Your task to perform on an android device: What's the weather going to be tomorrow? Image 0: 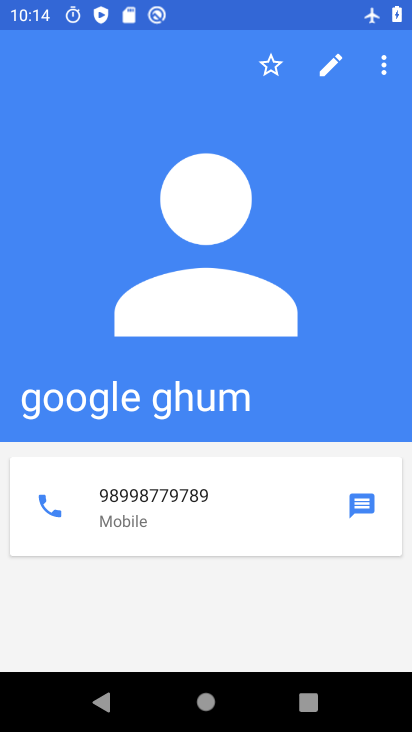
Step 0: press home button
Your task to perform on an android device: What's the weather going to be tomorrow? Image 1: 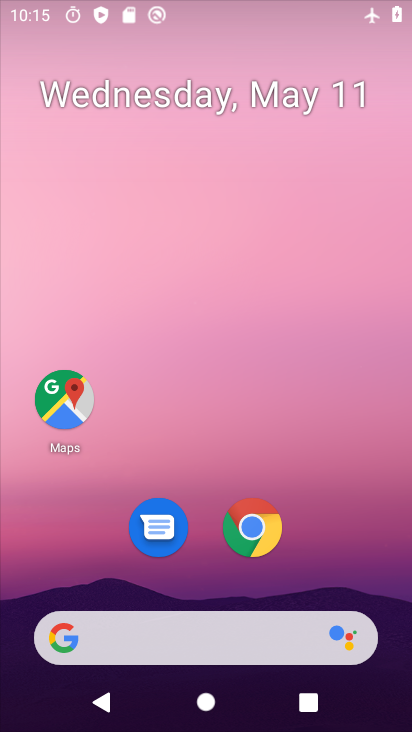
Step 1: drag from (282, 570) to (313, 149)
Your task to perform on an android device: What's the weather going to be tomorrow? Image 2: 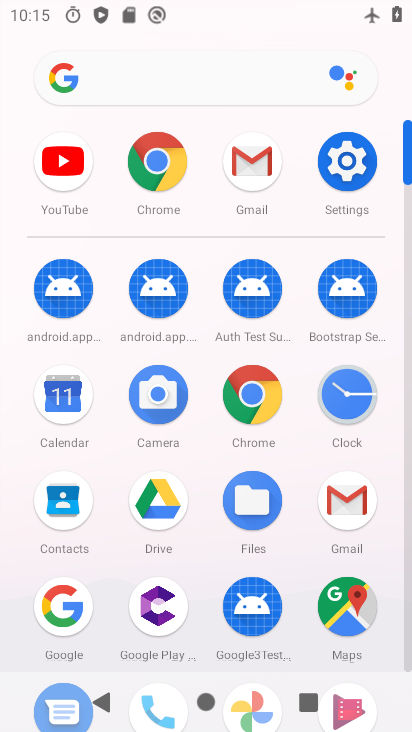
Step 2: drag from (277, 469) to (315, 248)
Your task to perform on an android device: What's the weather going to be tomorrow? Image 3: 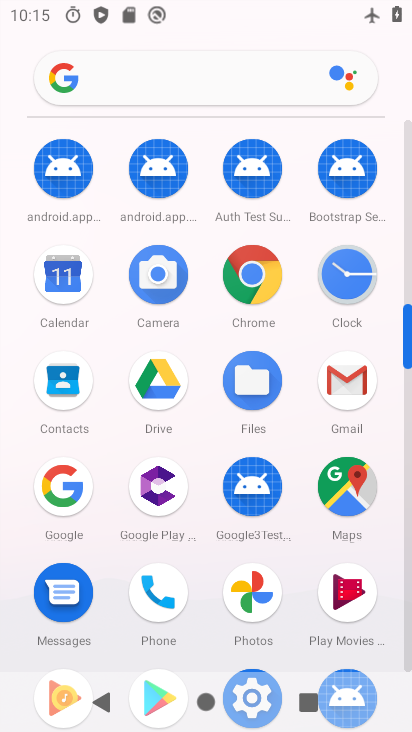
Step 3: click (61, 499)
Your task to perform on an android device: What's the weather going to be tomorrow? Image 4: 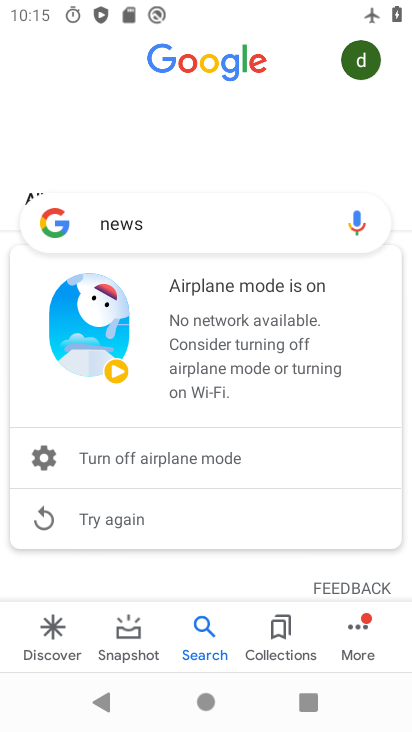
Step 4: click (289, 226)
Your task to perform on an android device: What's the weather going to be tomorrow? Image 5: 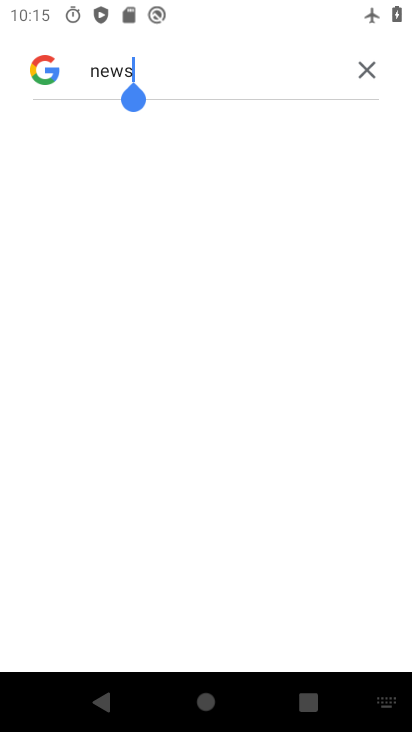
Step 5: click (366, 72)
Your task to perform on an android device: What's the weather going to be tomorrow? Image 6: 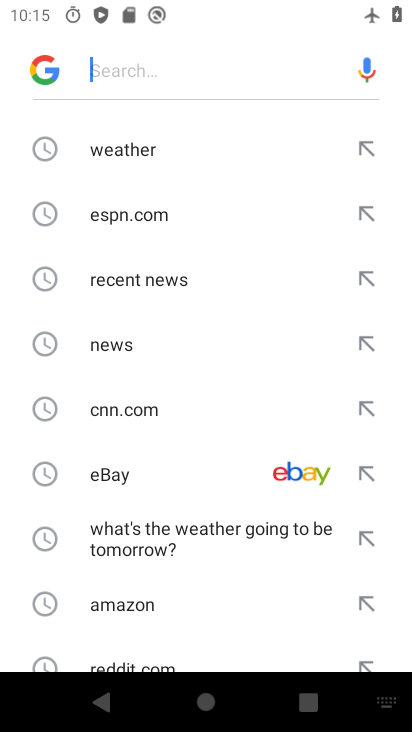
Step 6: click (212, 155)
Your task to perform on an android device: What's the weather going to be tomorrow? Image 7: 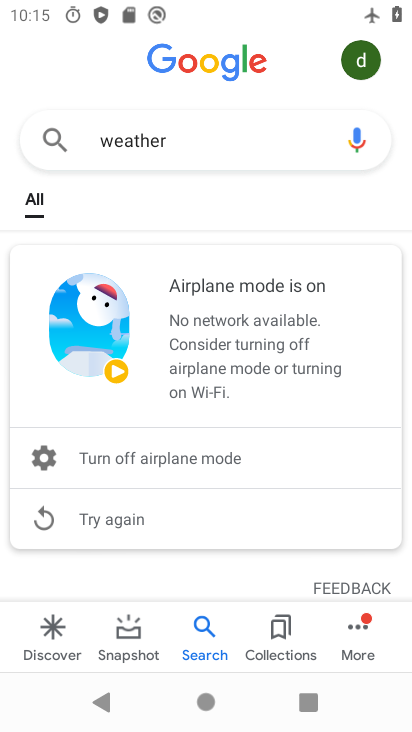
Step 7: task complete